Your task to perform on an android device: change alarm snooze length Image 0: 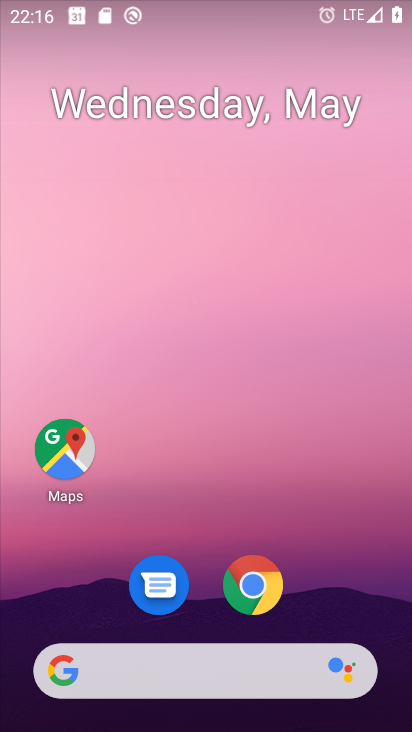
Step 0: drag from (335, 508) to (270, 89)
Your task to perform on an android device: change alarm snooze length Image 1: 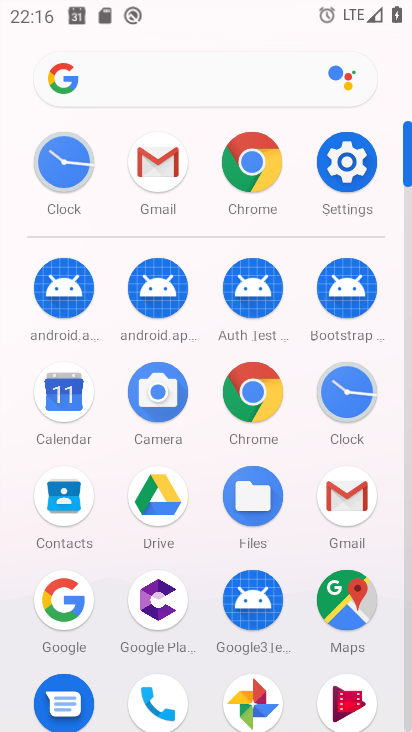
Step 1: click (349, 402)
Your task to perform on an android device: change alarm snooze length Image 2: 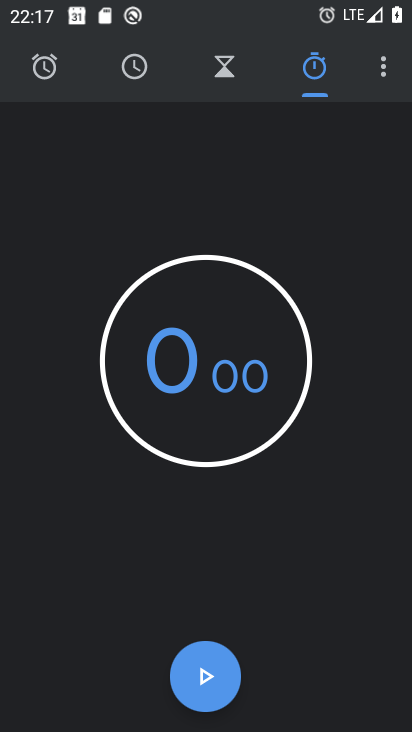
Step 2: click (382, 70)
Your task to perform on an android device: change alarm snooze length Image 3: 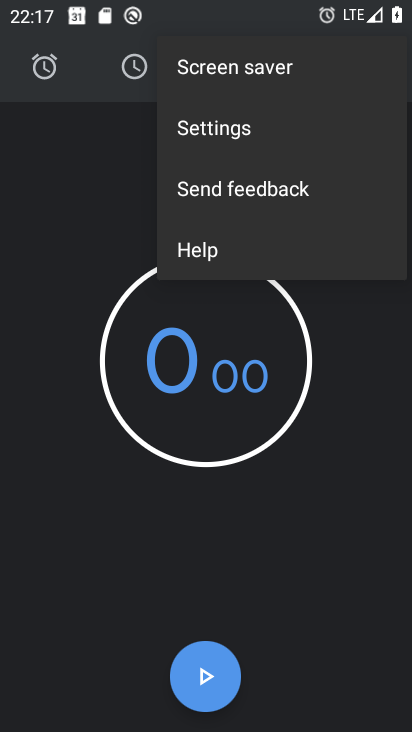
Step 3: click (303, 127)
Your task to perform on an android device: change alarm snooze length Image 4: 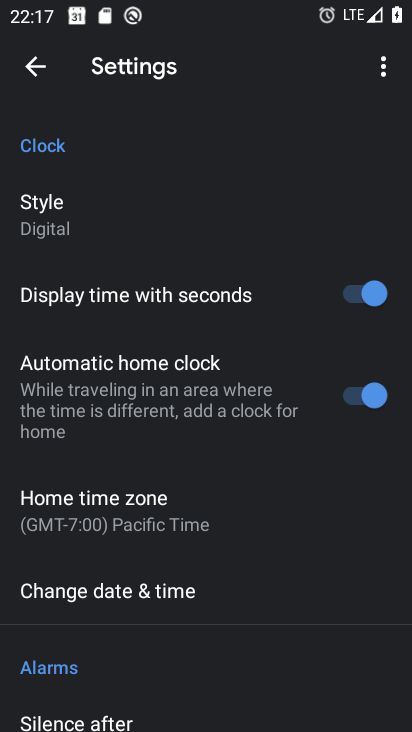
Step 4: drag from (243, 496) to (247, 216)
Your task to perform on an android device: change alarm snooze length Image 5: 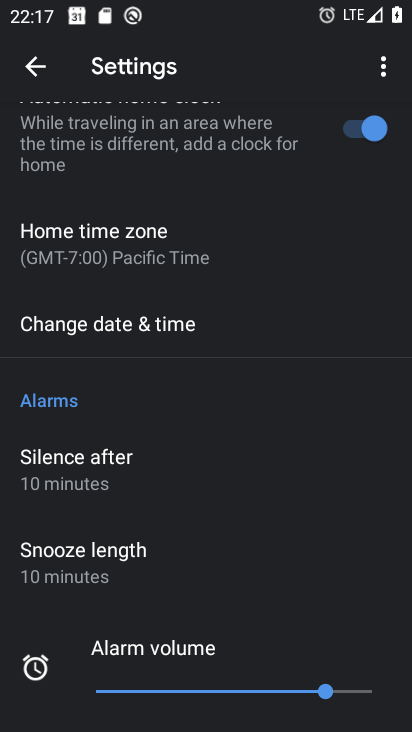
Step 5: click (113, 554)
Your task to perform on an android device: change alarm snooze length Image 6: 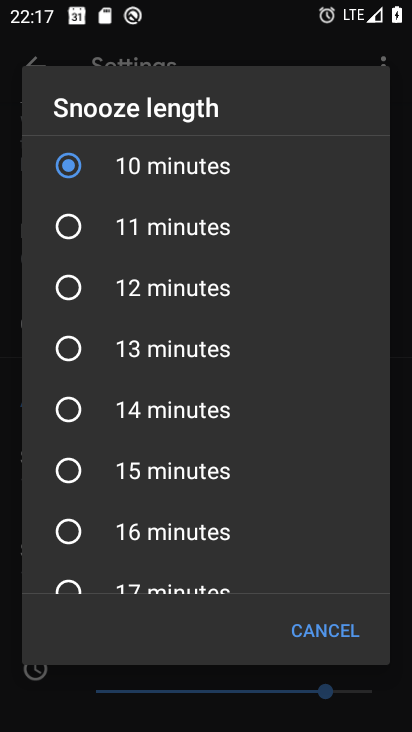
Step 6: click (71, 284)
Your task to perform on an android device: change alarm snooze length Image 7: 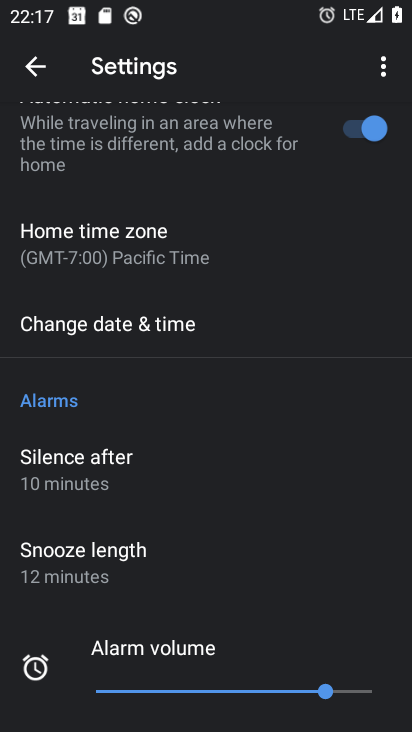
Step 7: task complete